Your task to perform on an android device: open wifi settings Image 0: 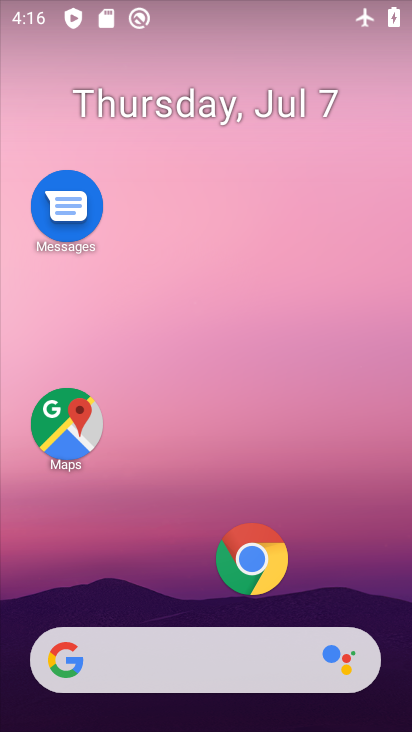
Step 0: drag from (196, 608) to (219, 56)
Your task to perform on an android device: open wifi settings Image 1: 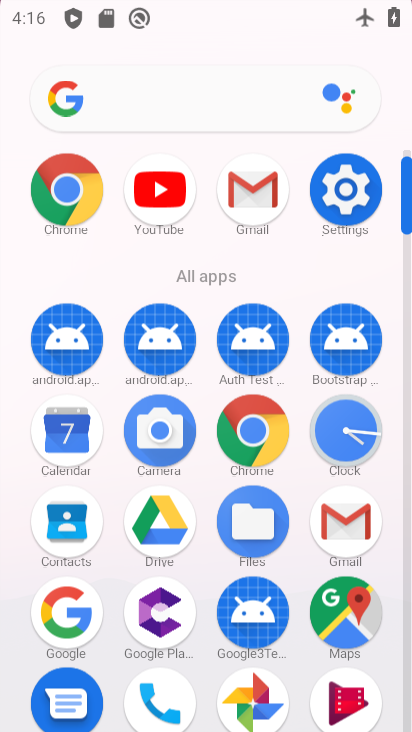
Step 1: click (332, 192)
Your task to perform on an android device: open wifi settings Image 2: 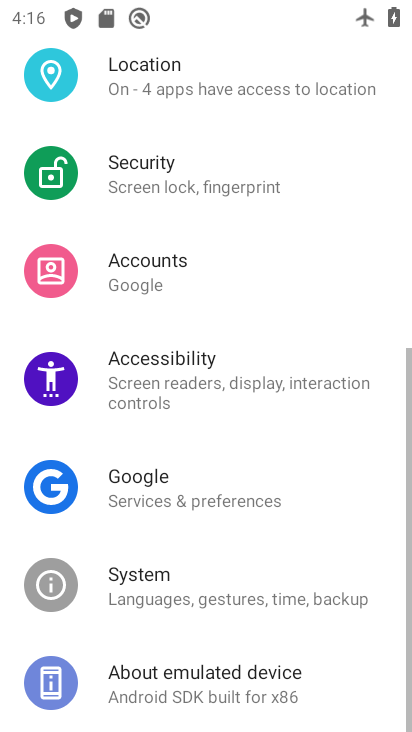
Step 2: drag from (187, 155) to (173, 624)
Your task to perform on an android device: open wifi settings Image 3: 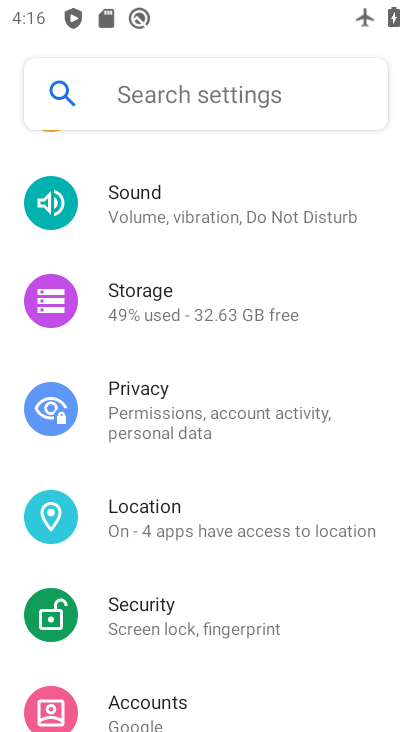
Step 3: drag from (169, 191) to (174, 586)
Your task to perform on an android device: open wifi settings Image 4: 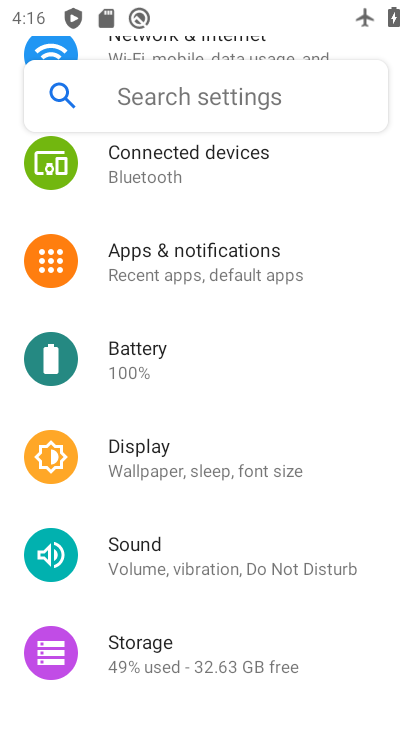
Step 4: drag from (174, 179) to (170, 455)
Your task to perform on an android device: open wifi settings Image 5: 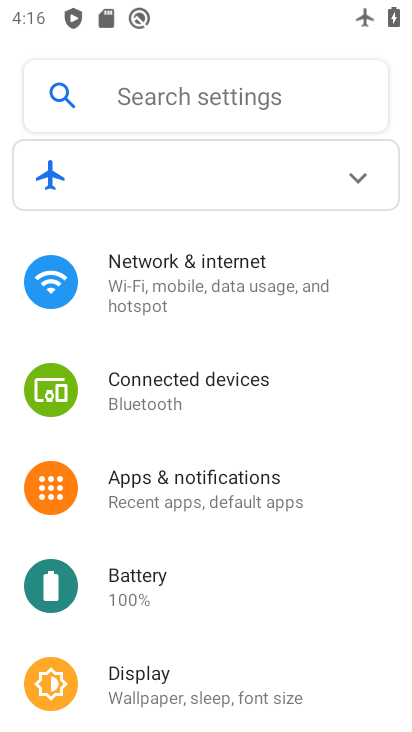
Step 5: click (160, 295)
Your task to perform on an android device: open wifi settings Image 6: 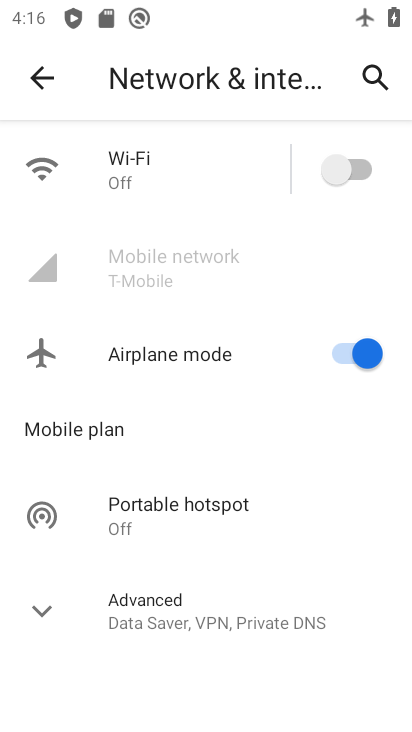
Step 6: click (152, 193)
Your task to perform on an android device: open wifi settings Image 7: 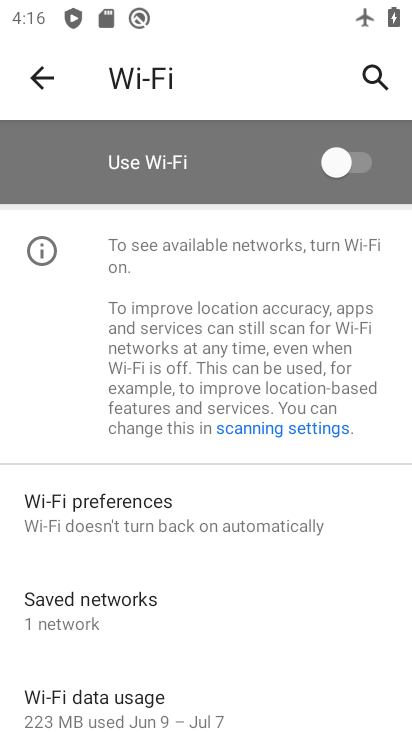
Step 7: task complete